Your task to perform on an android device: open chrome and create a bookmark for the current page Image 0: 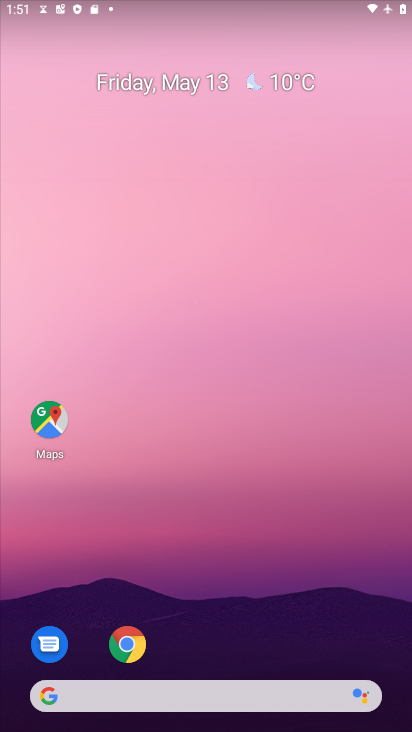
Step 0: click (125, 648)
Your task to perform on an android device: open chrome and create a bookmark for the current page Image 1: 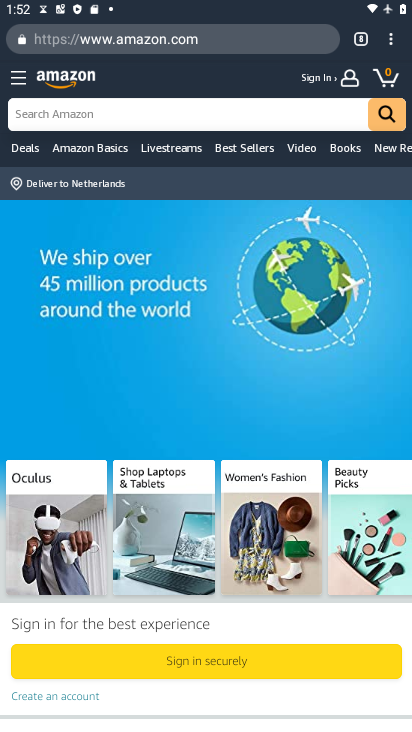
Step 1: click (390, 45)
Your task to perform on an android device: open chrome and create a bookmark for the current page Image 2: 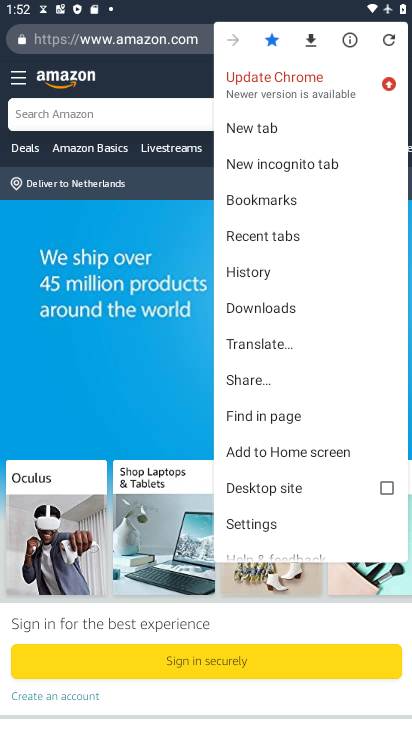
Step 2: click (166, 225)
Your task to perform on an android device: open chrome and create a bookmark for the current page Image 3: 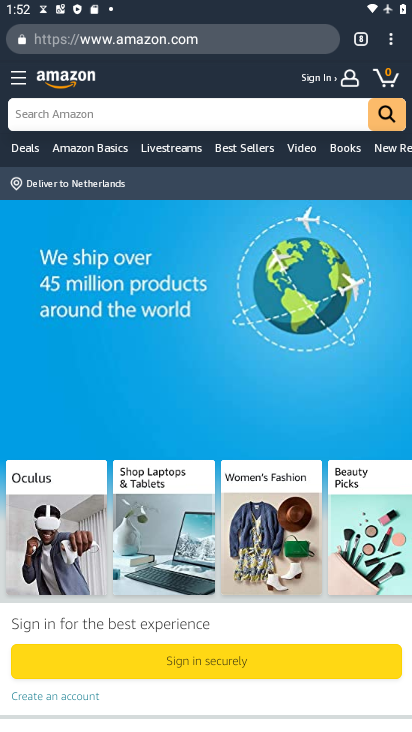
Step 3: task complete